Your task to perform on an android device: turn off javascript in the chrome app Image 0: 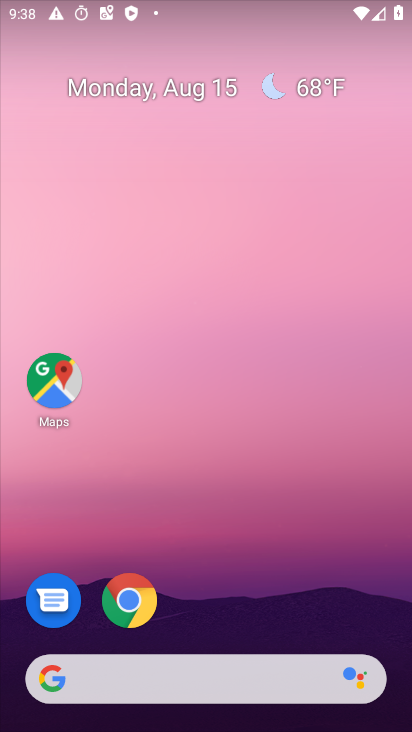
Step 0: click (129, 614)
Your task to perform on an android device: turn off javascript in the chrome app Image 1: 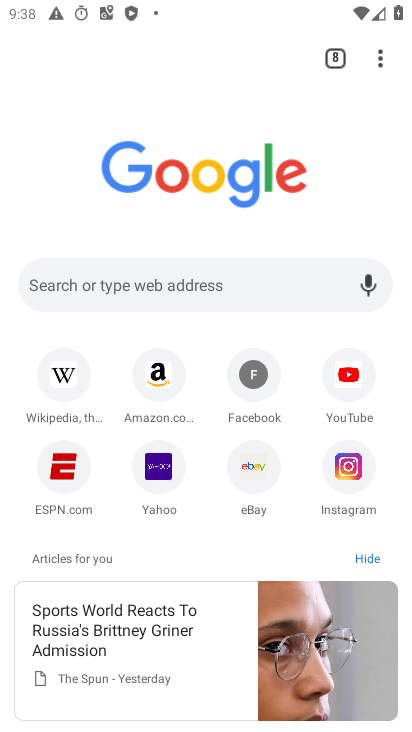
Step 1: click (380, 61)
Your task to perform on an android device: turn off javascript in the chrome app Image 2: 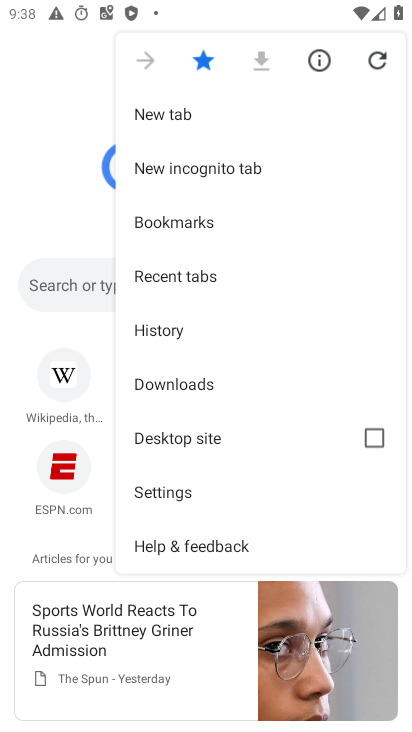
Step 2: click (168, 492)
Your task to perform on an android device: turn off javascript in the chrome app Image 3: 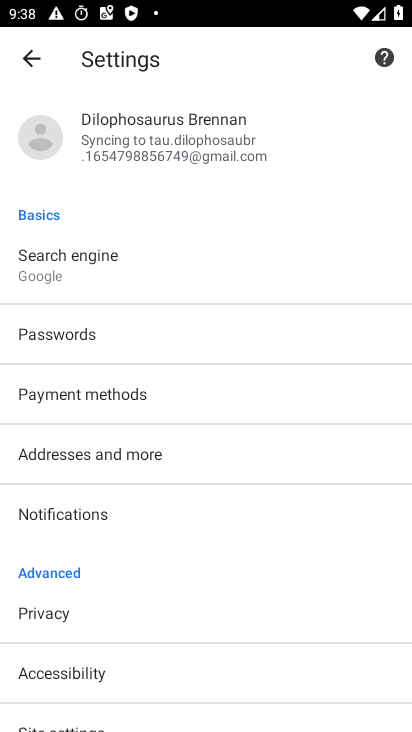
Step 3: drag from (95, 691) to (108, 327)
Your task to perform on an android device: turn off javascript in the chrome app Image 4: 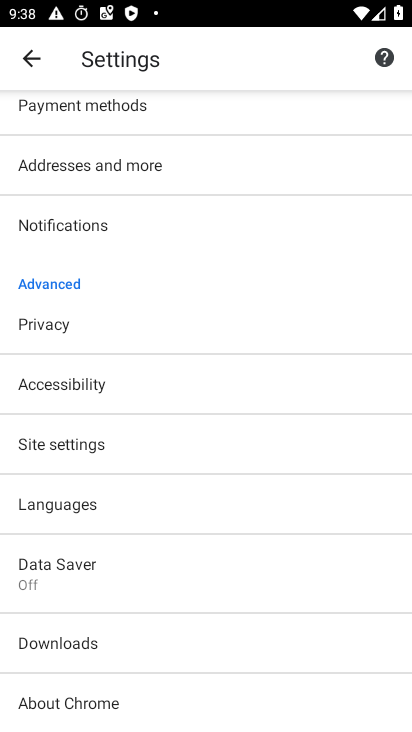
Step 4: click (83, 441)
Your task to perform on an android device: turn off javascript in the chrome app Image 5: 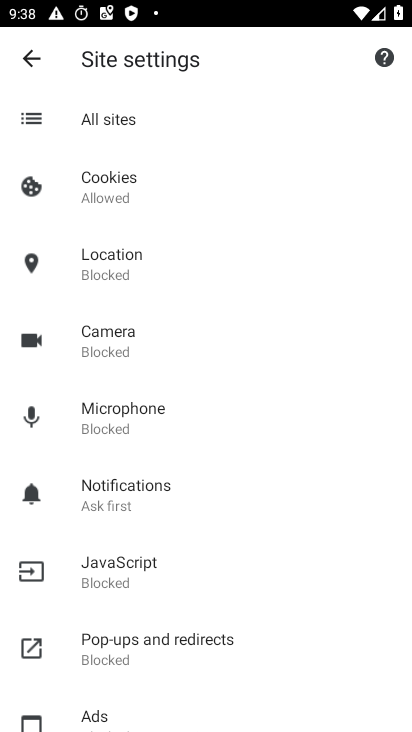
Step 5: click (125, 565)
Your task to perform on an android device: turn off javascript in the chrome app Image 6: 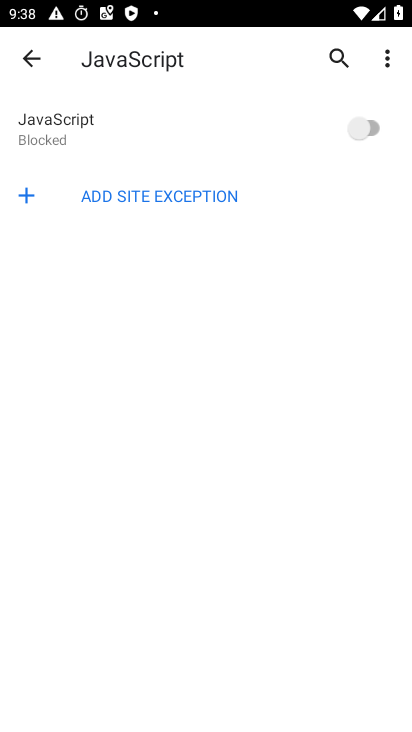
Step 6: task complete